Your task to perform on an android device: move a message to another label in the gmail app Image 0: 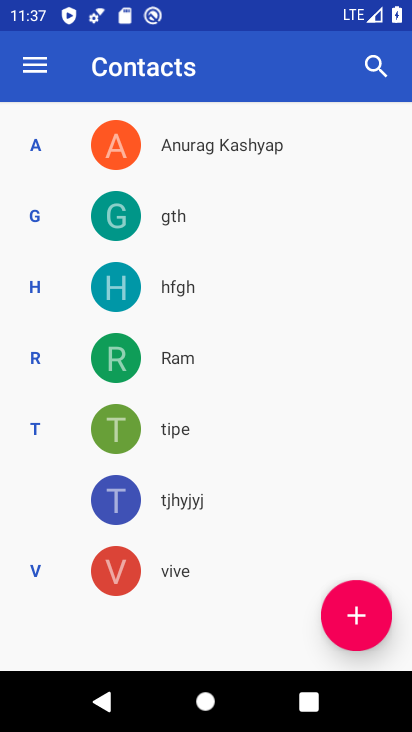
Step 0: press home button
Your task to perform on an android device: move a message to another label in the gmail app Image 1: 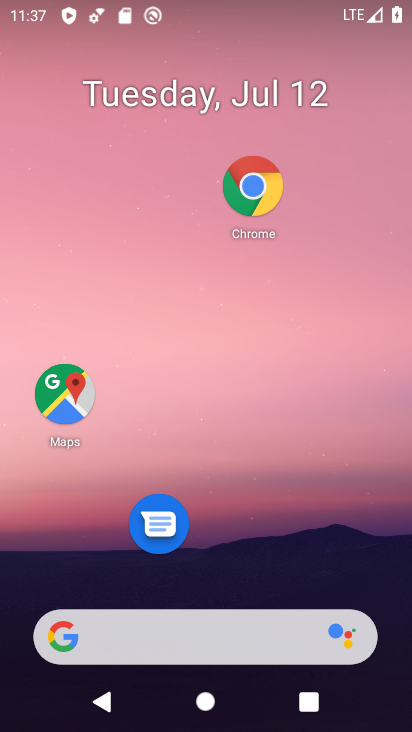
Step 1: drag from (199, 574) to (173, 104)
Your task to perform on an android device: move a message to another label in the gmail app Image 2: 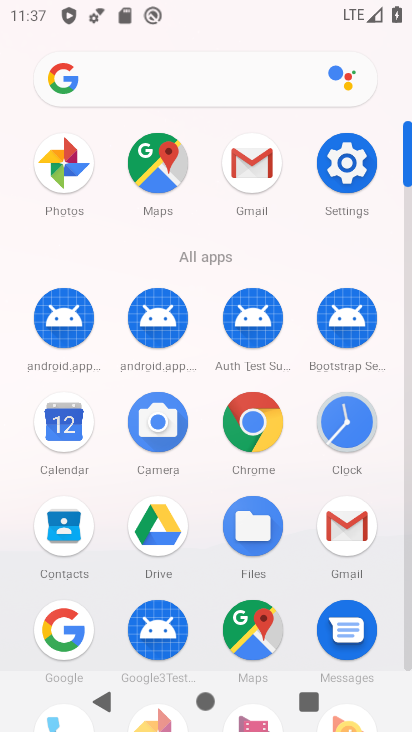
Step 2: click (353, 518)
Your task to perform on an android device: move a message to another label in the gmail app Image 3: 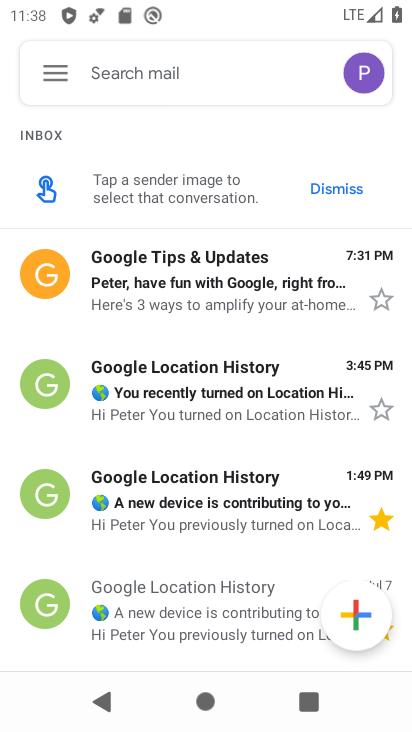
Step 3: click (167, 302)
Your task to perform on an android device: move a message to another label in the gmail app Image 4: 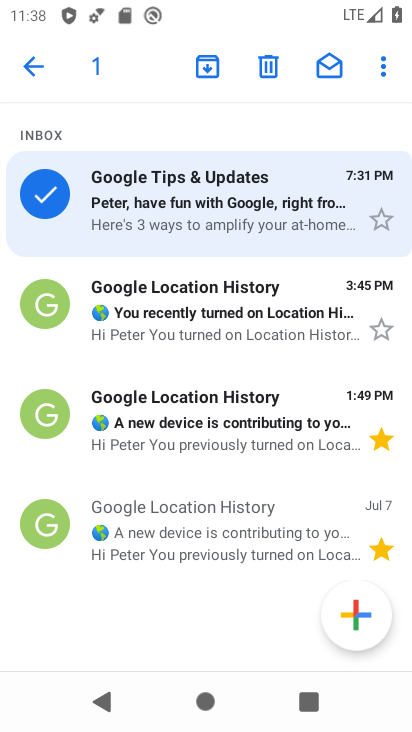
Step 4: click (388, 70)
Your task to perform on an android device: move a message to another label in the gmail app Image 5: 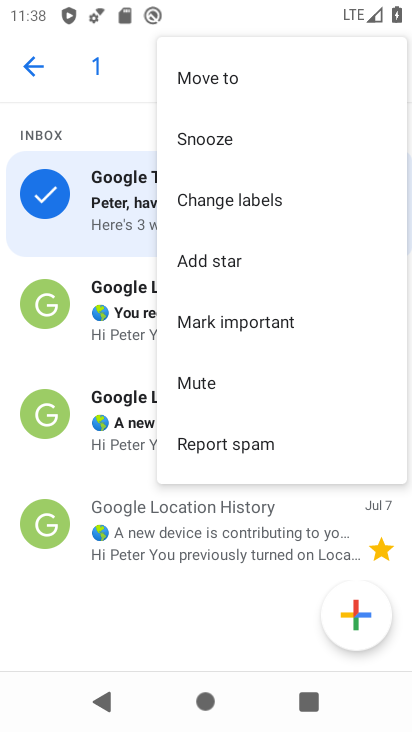
Step 5: click (209, 80)
Your task to perform on an android device: move a message to another label in the gmail app Image 6: 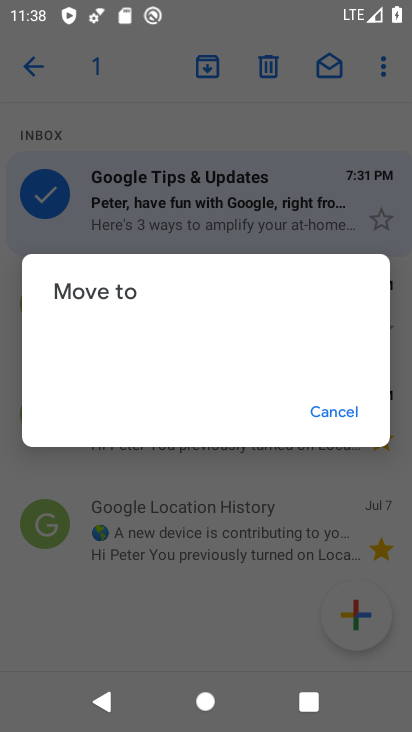
Step 6: task complete